Your task to perform on an android device: Search for Mexican restaurants on Maps Image 0: 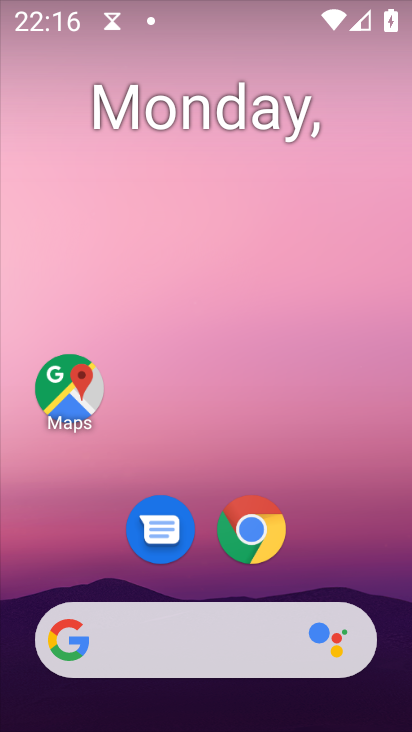
Step 0: click (68, 390)
Your task to perform on an android device: Search for Mexican restaurants on Maps Image 1: 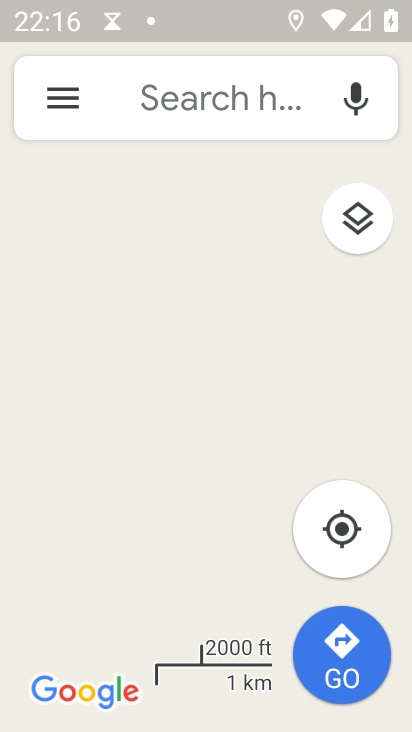
Step 1: click (216, 100)
Your task to perform on an android device: Search for Mexican restaurants on Maps Image 2: 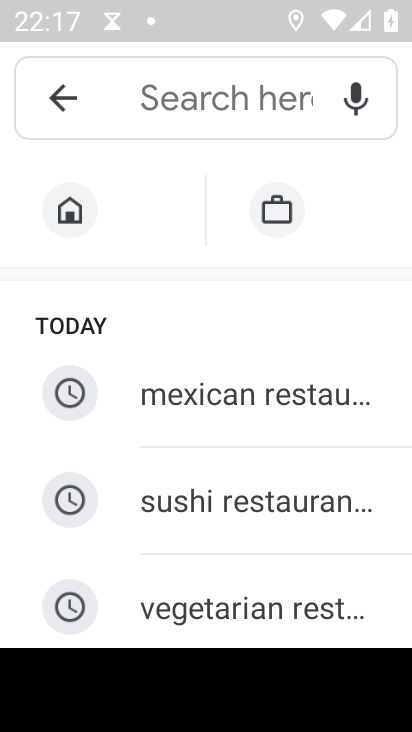
Step 2: type "Mexican restaurants"
Your task to perform on an android device: Search for Mexican restaurants on Maps Image 3: 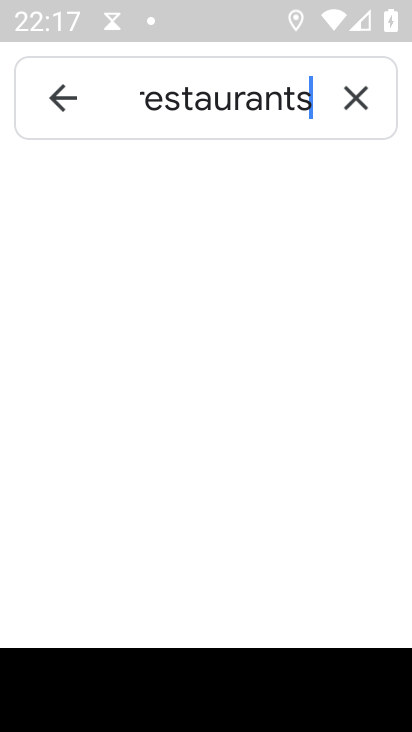
Step 3: type ""
Your task to perform on an android device: Search for Mexican restaurants on Maps Image 4: 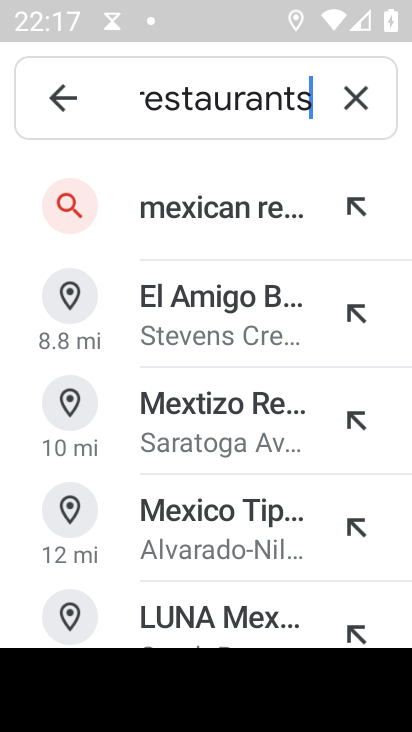
Step 4: click (242, 215)
Your task to perform on an android device: Search for Mexican restaurants on Maps Image 5: 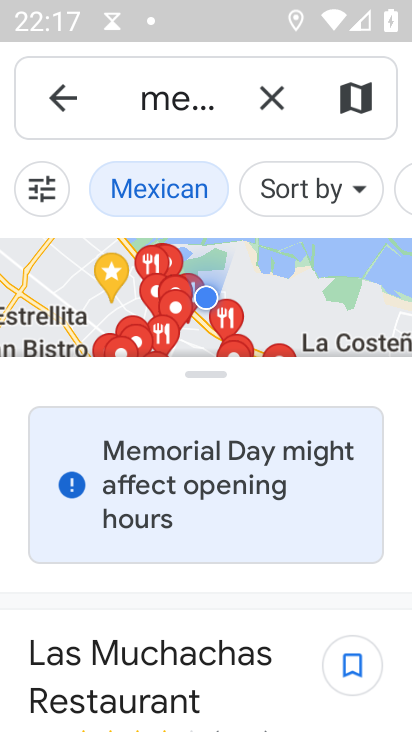
Step 5: task complete